Your task to perform on an android device: Go to Google maps Image 0: 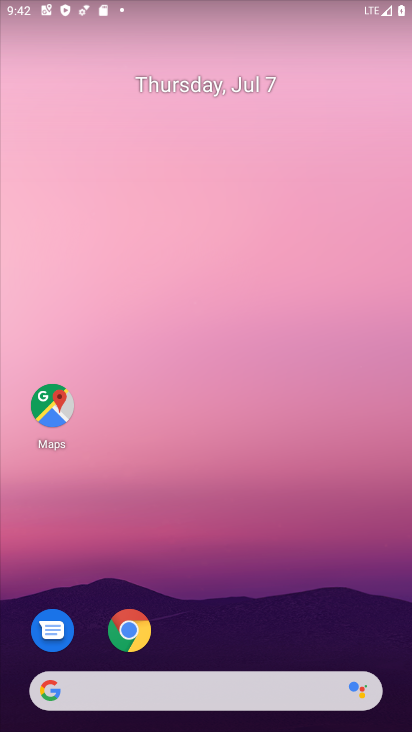
Step 0: click (76, 425)
Your task to perform on an android device: Go to Google maps Image 1: 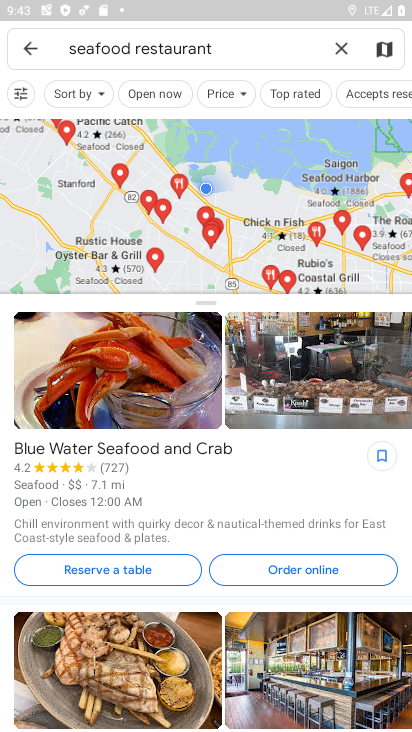
Step 1: task complete